Your task to perform on an android device: delete a single message in the gmail app Image 0: 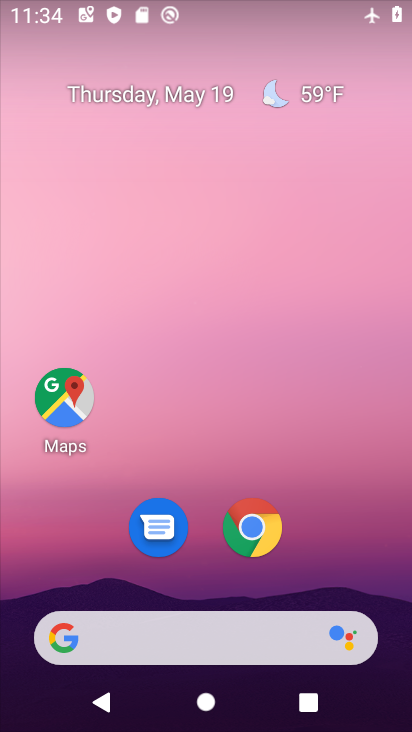
Step 0: drag from (337, 553) to (311, 128)
Your task to perform on an android device: delete a single message in the gmail app Image 1: 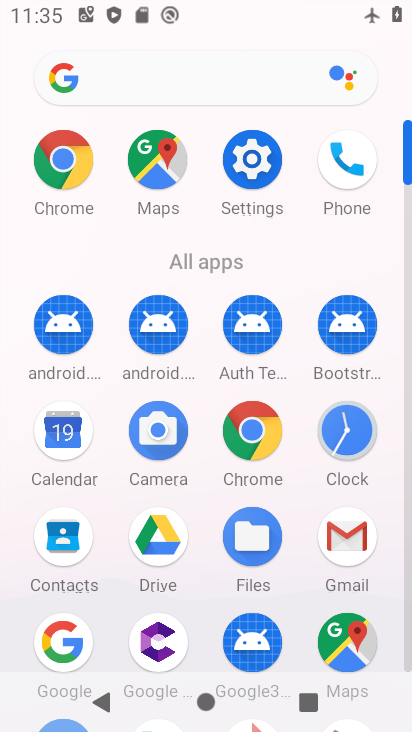
Step 1: click (386, 517)
Your task to perform on an android device: delete a single message in the gmail app Image 2: 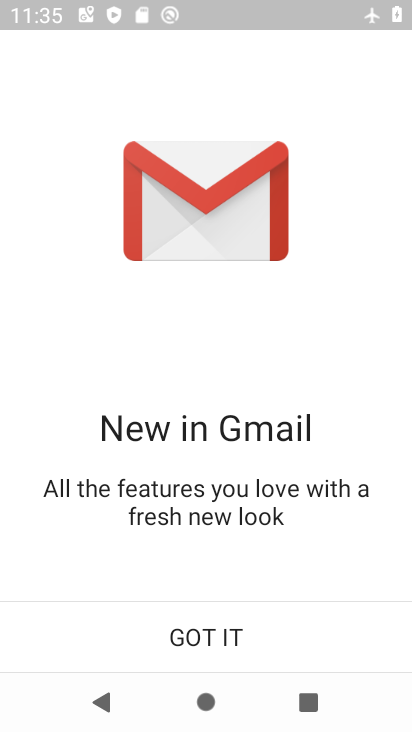
Step 2: click (367, 525)
Your task to perform on an android device: delete a single message in the gmail app Image 3: 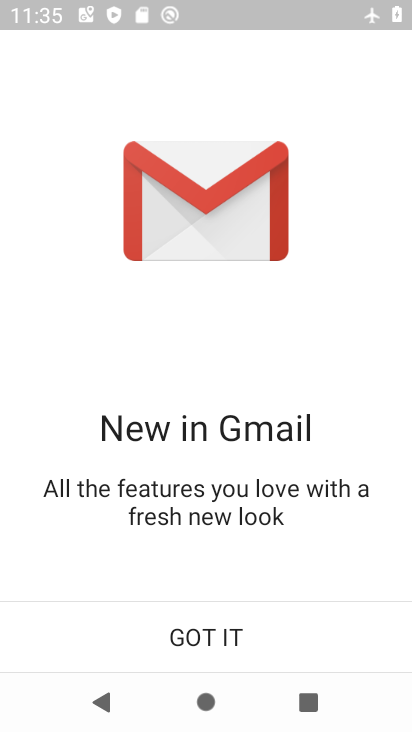
Step 3: click (255, 622)
Your task to perform on an android device: delete a single message in the gmail app Image 4: 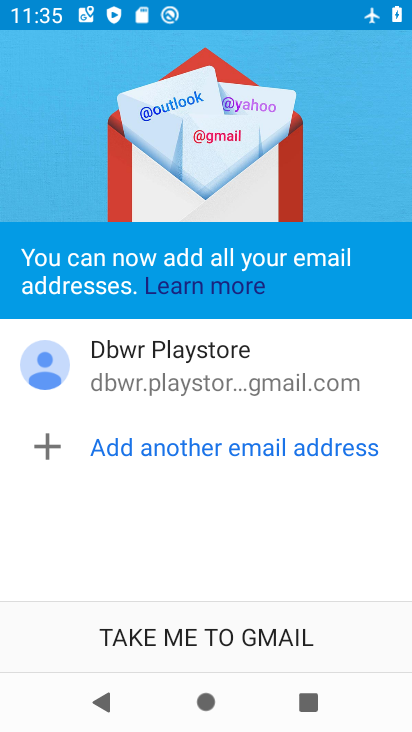
Step 4: click (255, 622)
Your task to perform on an android device: delete a single message in the gmail app Image 5: 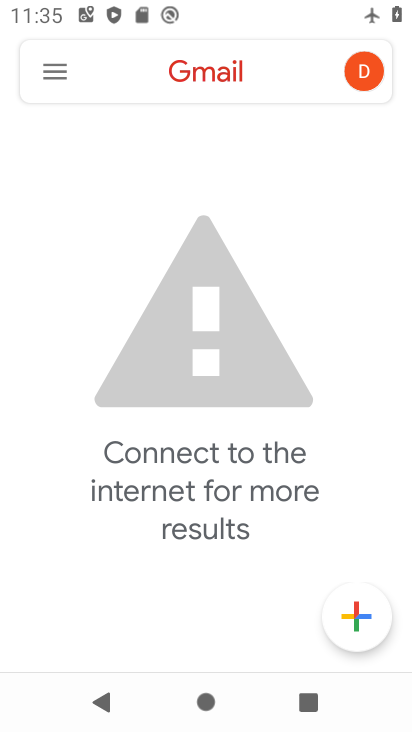
Step 5: click (51, 65)
Your task to perform on an android device: delete a single message in the gmail app Image 6: 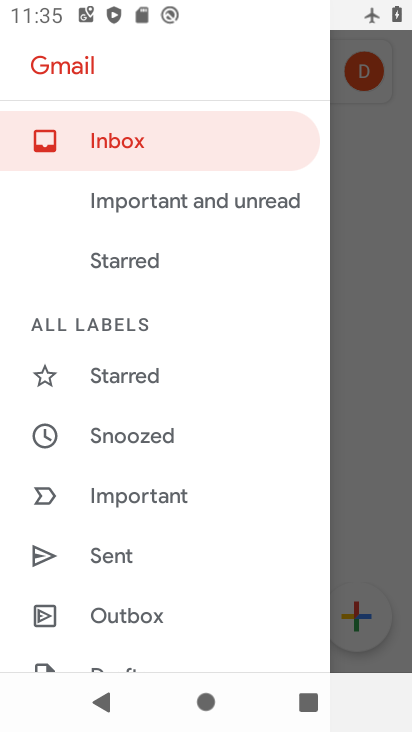
Step 6: drag from (189, 599) to (153, 247)
Your task to perform on an android device: delete a single message in the gmail app Image 7: 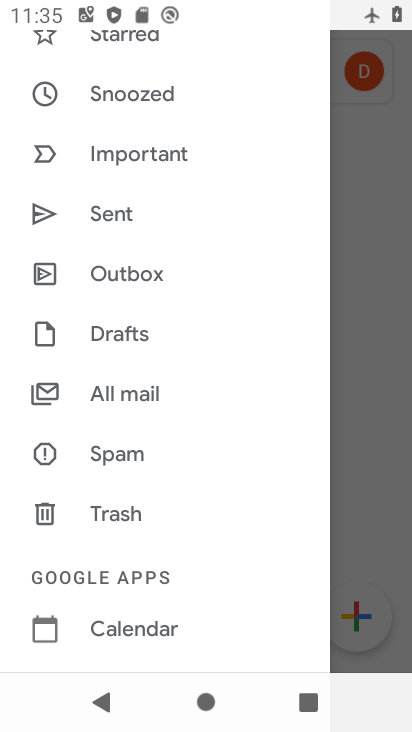
Step 7: click (149, 410)
Your task to perform on an android device: delete a single message in the gmail app Image 8: 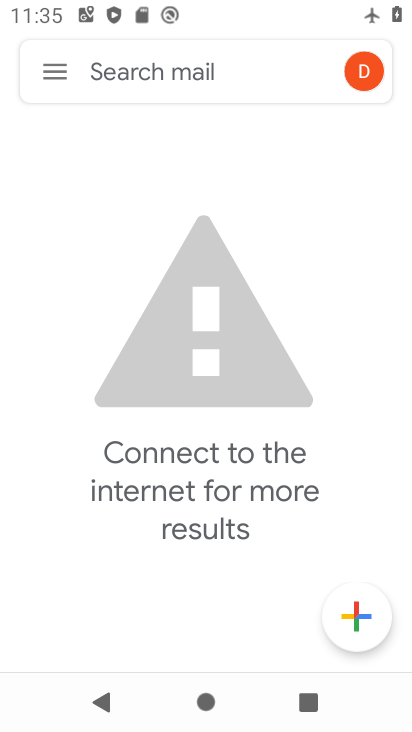
Step 8: task complete